Your task to perform on an android device: What's the weather going to be tomorrow? Image 0: 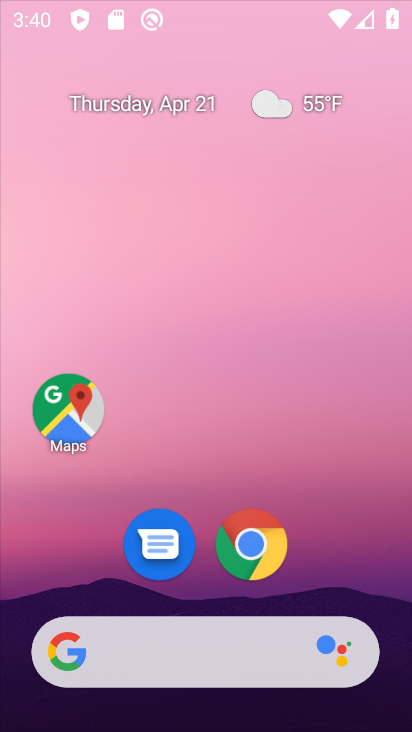
Step 0: drag from (183, 631) to (223, 193)
Your task to perform on an android device: What's the weather going to be tomorrow? Image 1: 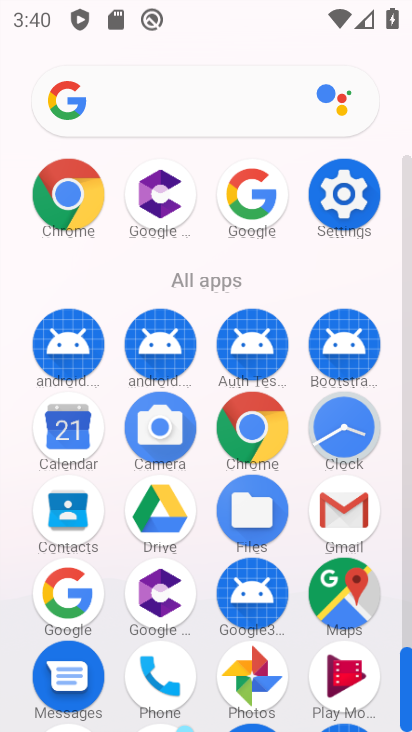
Step 1: press back button
Your task to perform on an android device: What's the weather going to be tomorrow? Image 2: 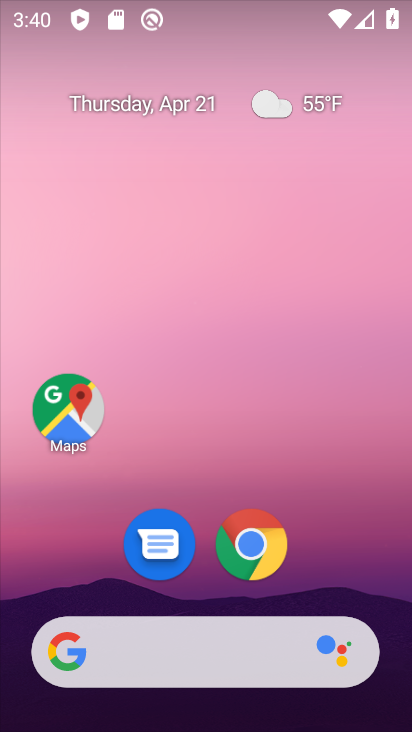
Step 2: click (284, 110)
Your task to perform on an android device: What's the weather going to be tomorrow? Image 3: 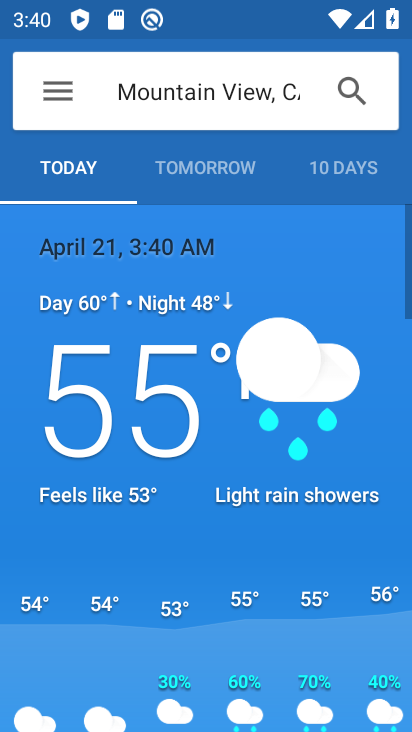
Step 3: click (189, 169)
Your task to perform on an android device: What's the weather going to be tomorrow? Image 4: 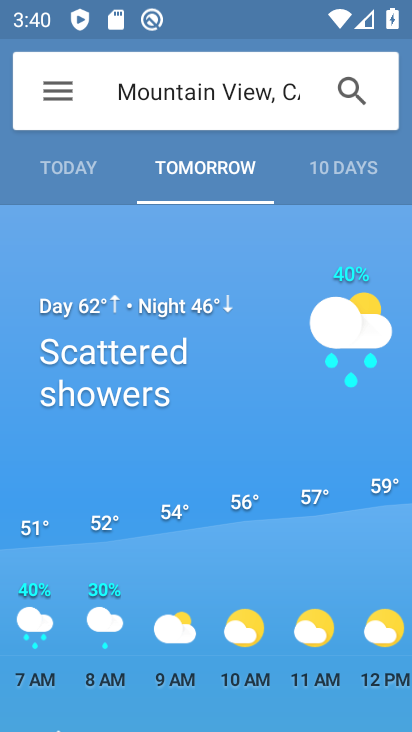
Step 4: click (257, 97)
Your task to perform on an android device: What's the weather going to be tomorrow? Image 5: 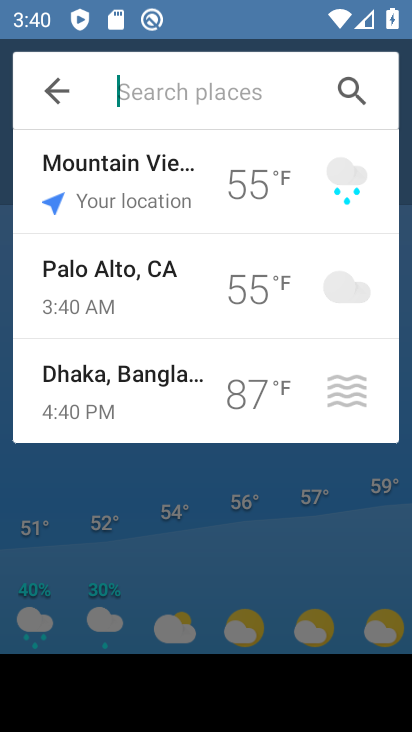
Step 5: click (63, 95)
Your task to perform on an android device: What's the weather going to be tomorrow? Image 6: 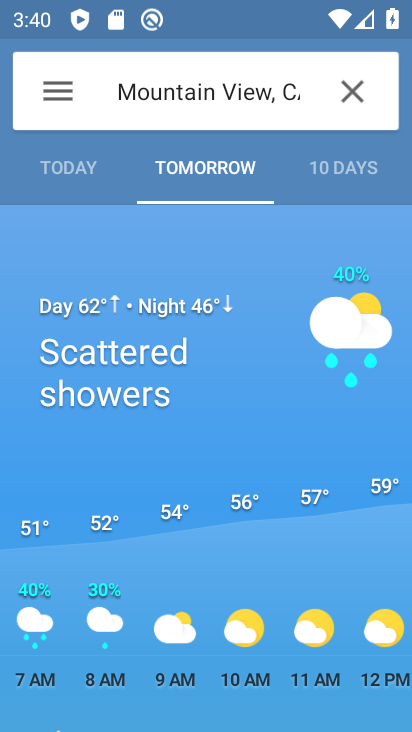
Step 6: task complete